Your task to perform on an android device: toggle location history Image 0: 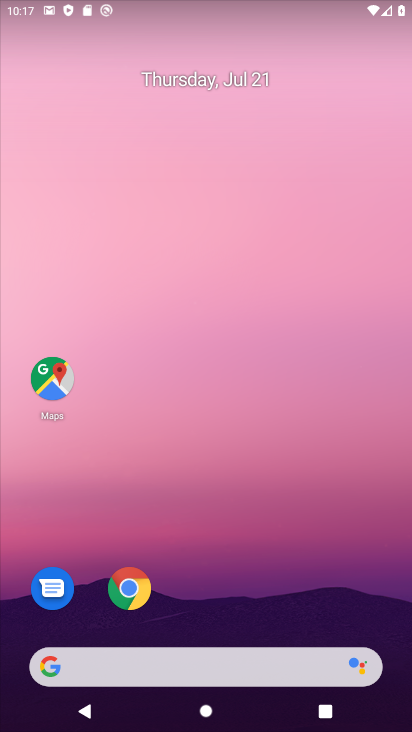
Step 0: drag from (190, 587) to (263, 52)
Your task to perform on an android device: toggle location history Image 1: 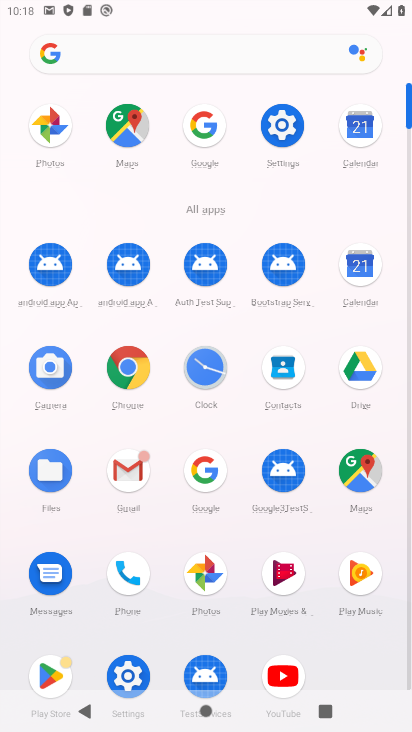
Step 1: click (120, 668)
Your task to perform on an android device: toggle location history Image 2: 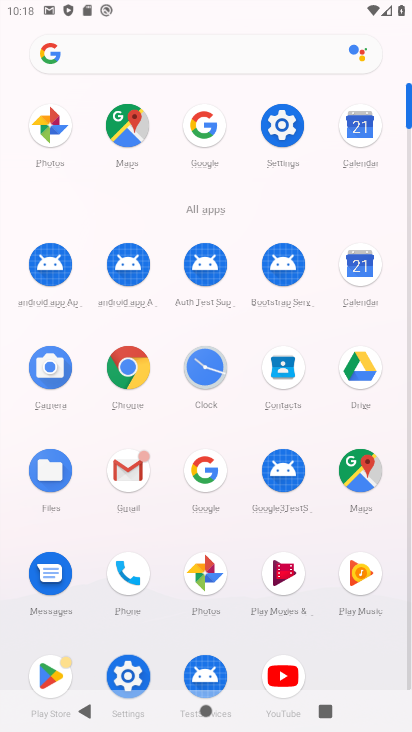
Step 2: click (119, 669)
Your task to perform on an android device: toggle location history Image 3: 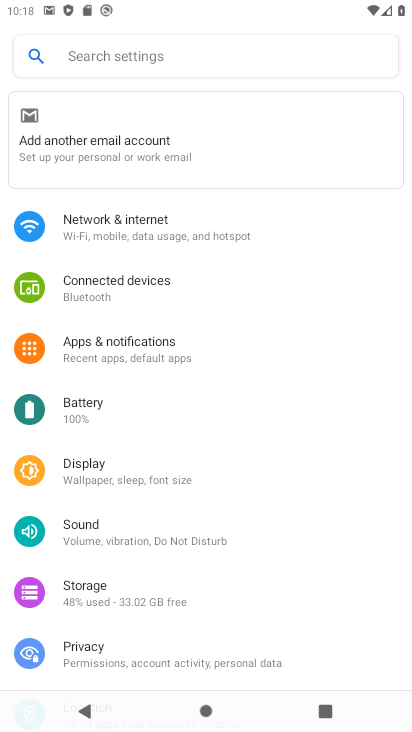
Step 3: drag from (155, 562) to (267, 134)
Your task to perform on an android device: toggle location history Image 4: 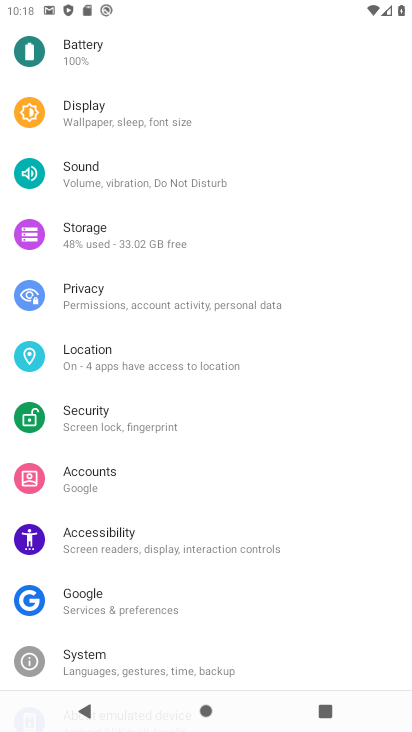
Step 4: click (118, 350)
Your task to perform on an android device: toggle location history Image 5: 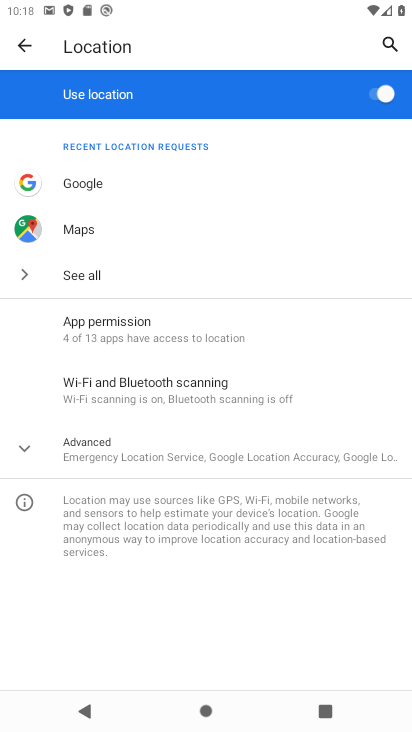
Step 5: click (105, 449)
Your task to perform on an android device: toggle location history Image 6: 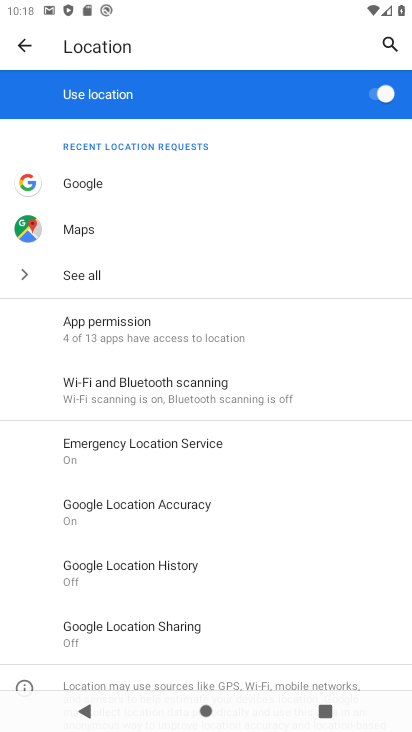
Step 6: click (133, 563)
Your task to perform on an android device: toggle location history Image 7: 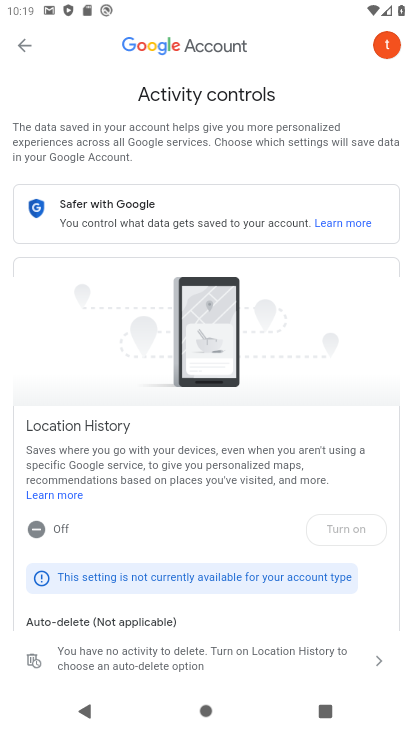
Step 7: click (346, 523)
Your task to perform on an android device: toggle location history Image 8: 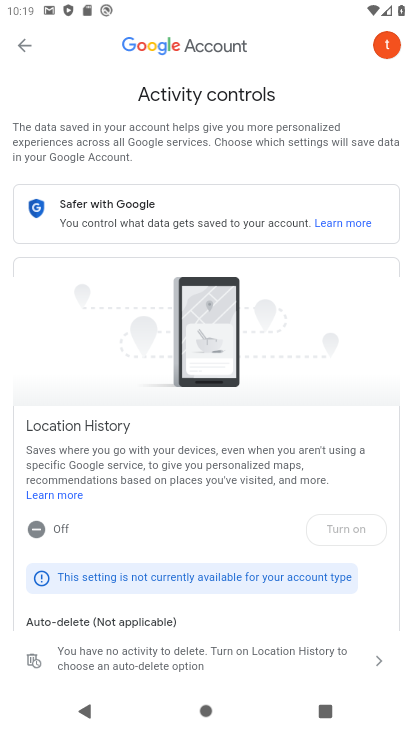
Step 8: drag from (215, 593) to (293, 307)
Your task to perform on an android device: toggle location history Image 9: 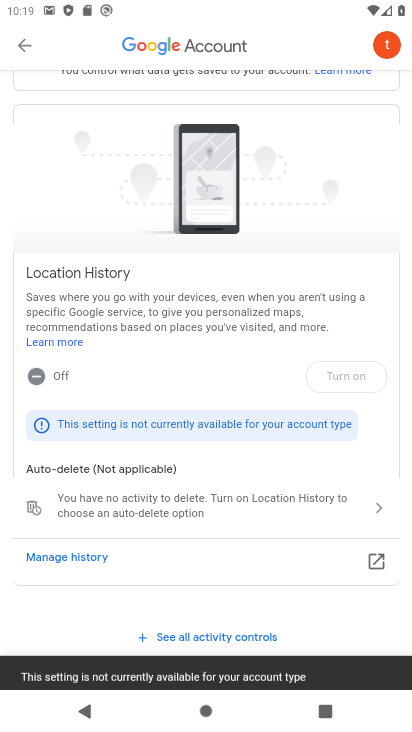
Step 9: drag from (44, 375) to (221, 17)
Your task to perform on an android device: toggle location history Image 10: 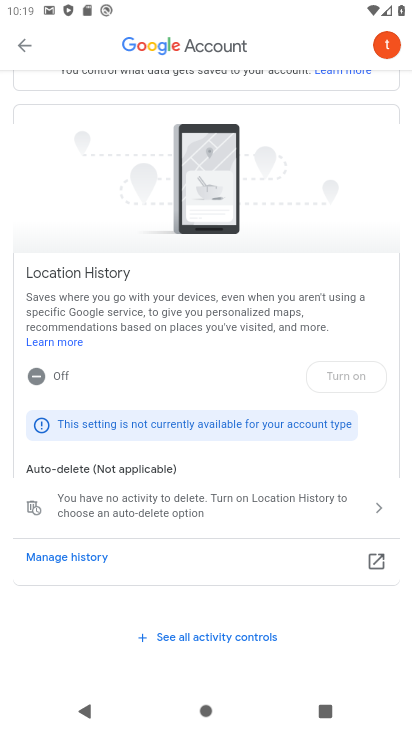
Step 10: click (344, 375)
Your task to perform on an android device: toggle location history Image 11: 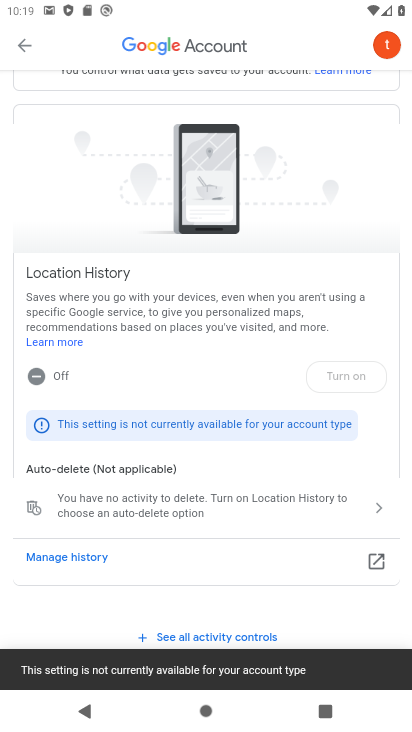
Step 11: task complete